Your task to perform on an android device: Go to Maps Image 0: 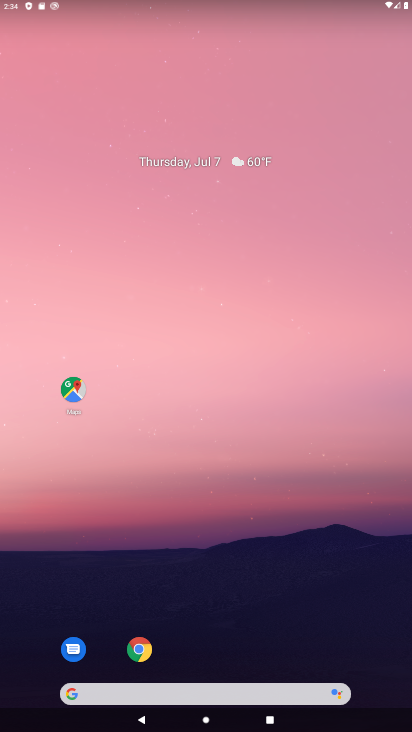
Step 0: drag from (210, 648) to (236, 130)
Your task to perform on an android device: Go to Maps Image 1: 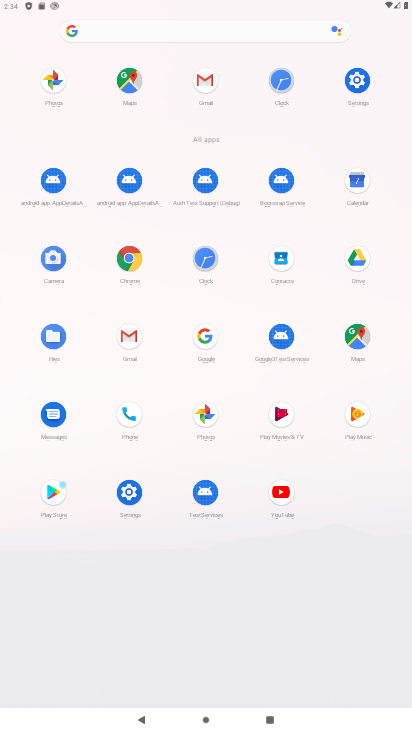
Step 1: click (355, 339)
Your task to perform on an android device: Go to Maps Image 2: 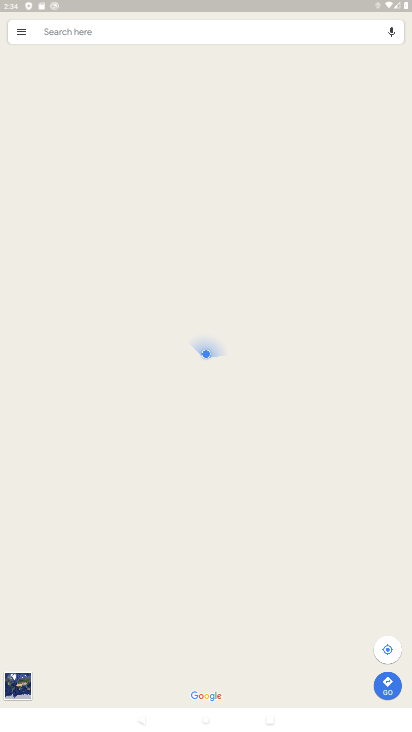
Step 2: task complete